Your task to perform on an android device: check storage Image 0: 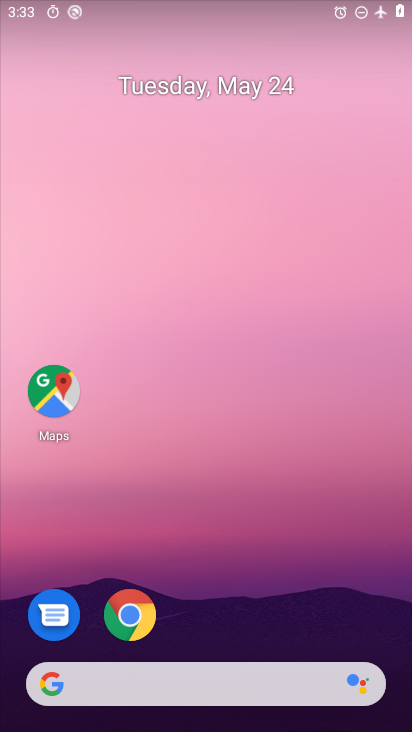
Step 0: drag from (173, 613) to (173, 307)
Your task to perform on an android device: check storage Image 1: 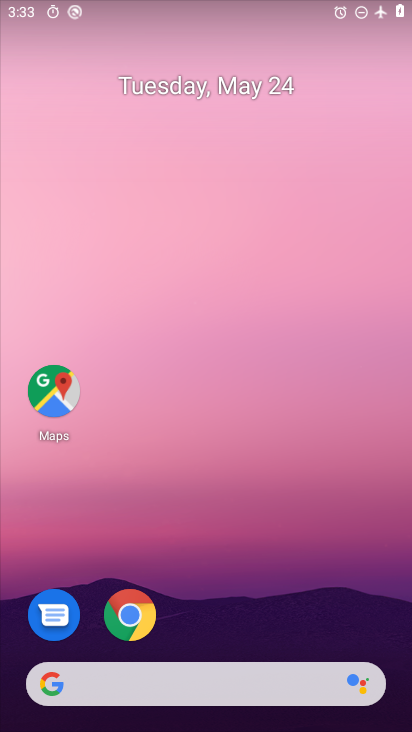
Step 1: drag from (217, 654) to (205, 172)
Your task to perform on an android device: check storage Image 2: 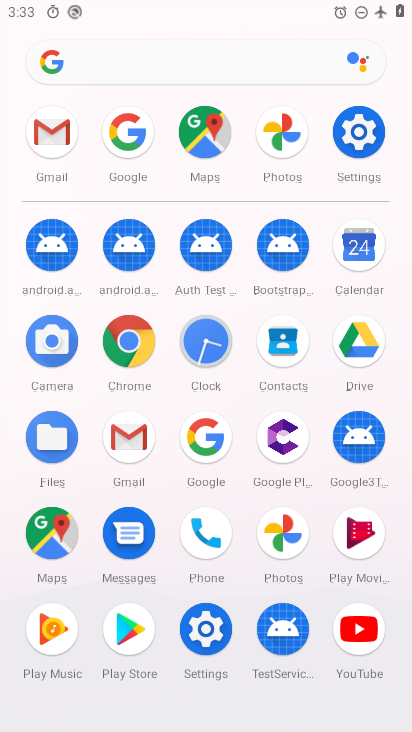
Step 2: click (370, 125)
Your task to perform on an android device: check storage Image 3: 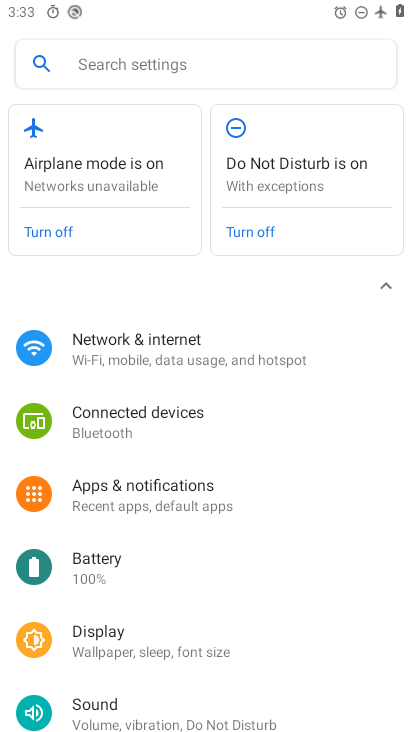
Step 3: drag from (258, 699) to (265, 324)
Your task to perform on an android device: check storage Image 4: 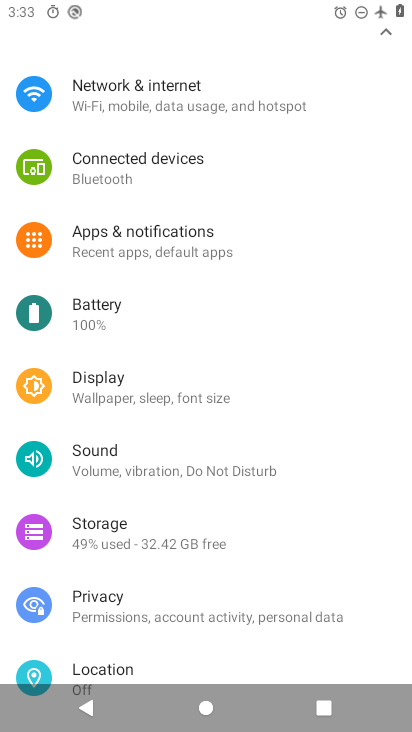
Step 4: click (157, 539)
Your task to perform on an android device: check storage Image 5: 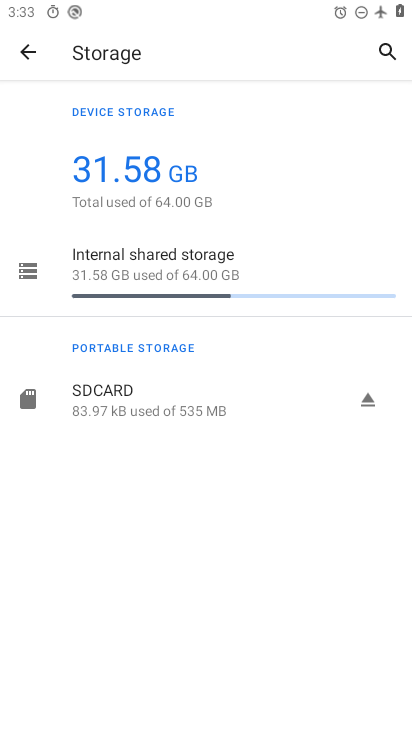
Step 5: task complete